Your task to perform on an android device: Search for "razer blackwidow" on target, select the first entry, add it to the cart, then select checkout. Image 0: 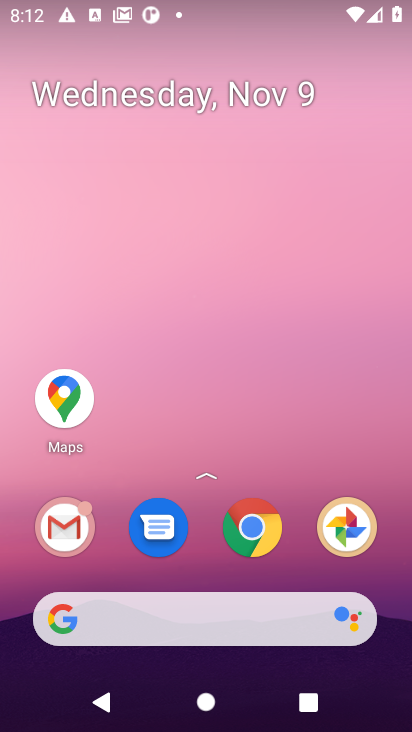
Step 0: click (257, 531)
Your task to perform on an android device: Search for "razer blackwidow" on target, select the first entry, add it to the cart, then select checkout. Image 1: 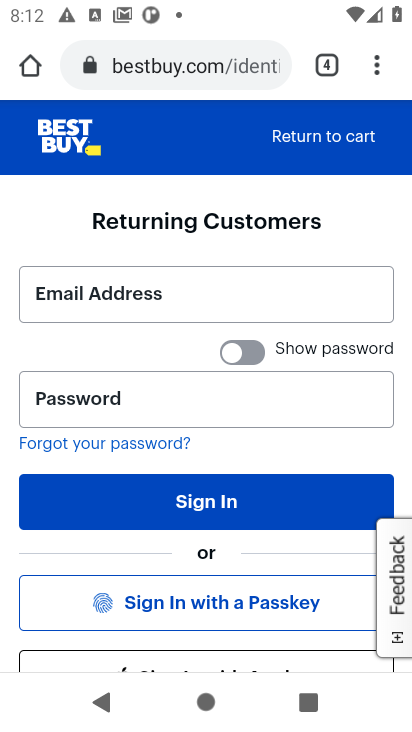
Step 1: click (173, 69)
Your task to perform on an android device: Search for "razer blackwidow" on target, select the first entry, add it to the cart, then select checkout. Image 2: 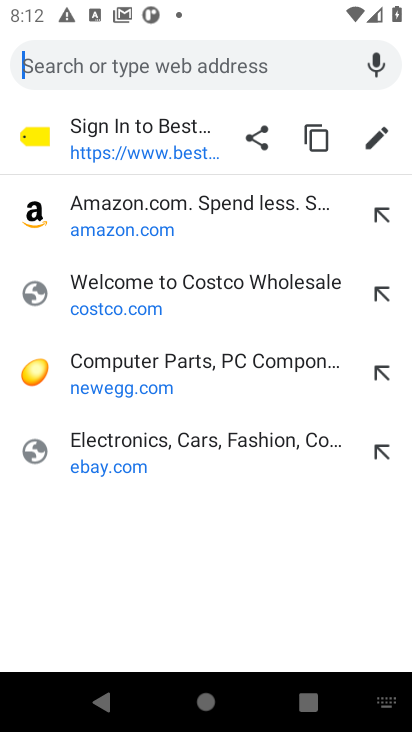
Step 2: type "target.com"
Your task to perform on an android device: Search for "razer blackwidow" on target, select the first entry, add it to the cart, then select checkout. Image 3: 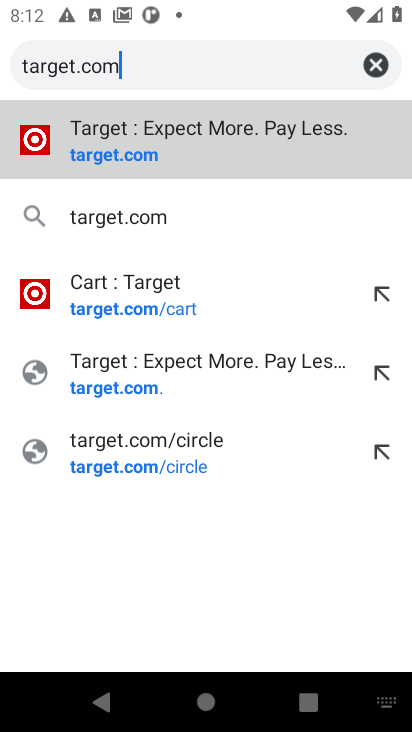
Step 3: click (114, 148)
Your task to perform on an android device: Search for "razer blackwidow" on target, select the first entry, add it to the cart, then select checkout. Image 4: 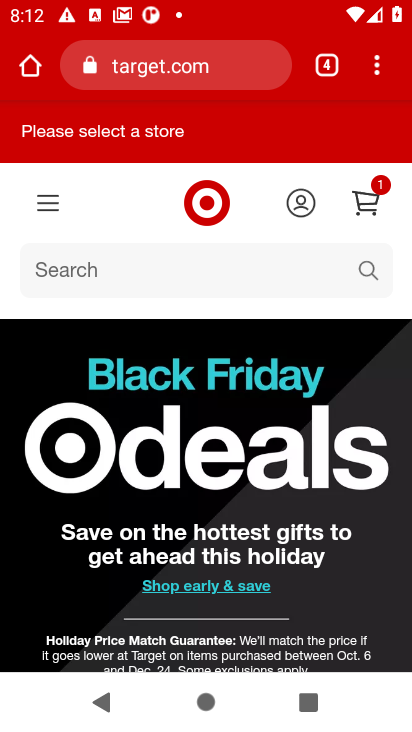
Step 4: click (371, 276)
Your task to perform on an android device: Search for "razer blackwidow" on target, select the first entry, add it to the cart, then select checkout. Image 5: 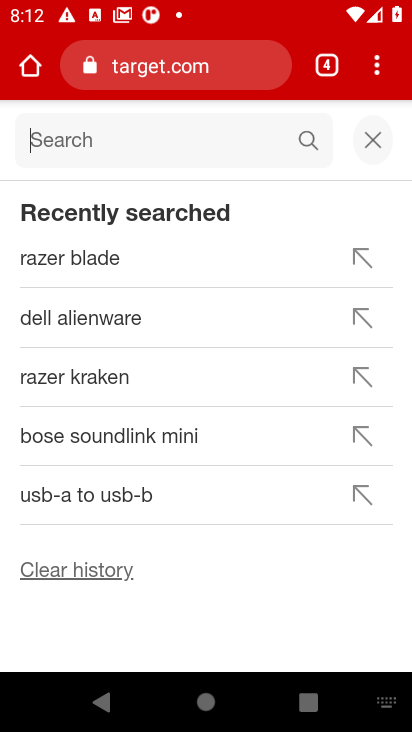
Step 5: type "razer blackwidow"
Your task to perform on an android device: Search for "razer blackwidow" on target, select the first entry, add it to the cart, then select checkout. Image 6: 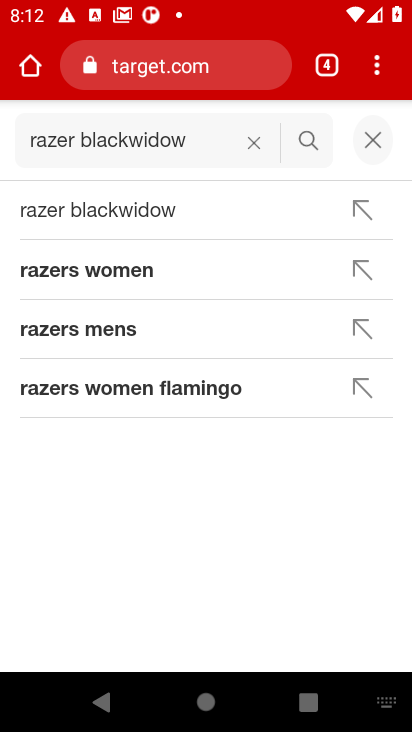
Step 6: click (144, 217)
Your task to perform on an android device: Search for "razer blackwidow" on target, select the first entry, add it to the cart, then select checkout. Image 7: 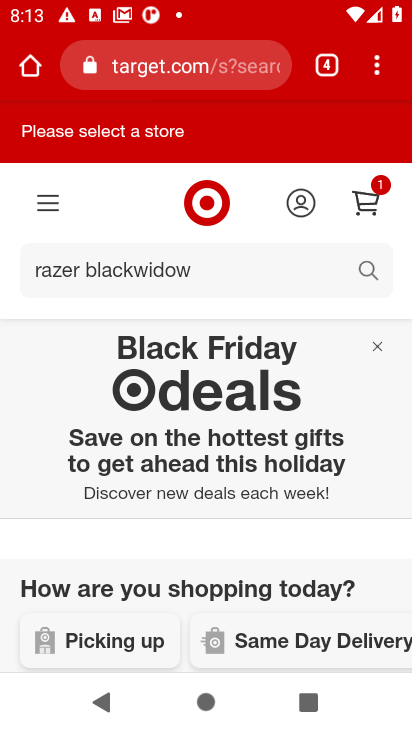
Step 7: drag from (186, 528) to (214, 190)
Your task to perform on an android device: Search for "razer blackwidow" on target, select the first entry, add it to the cart, then select checkout. Image 8: 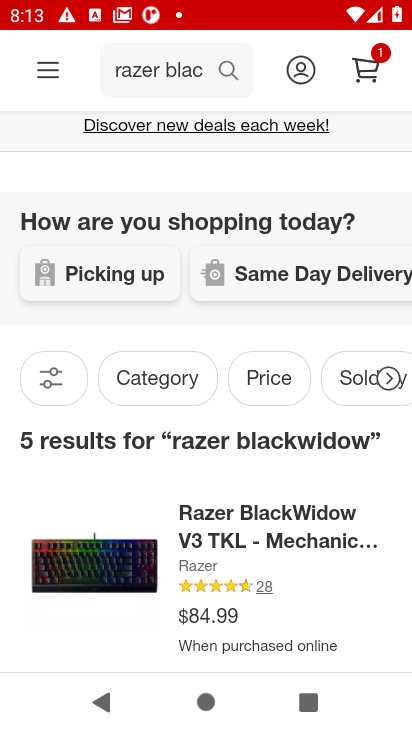
Step 8: drag from (165, 490) to (182, 284)
Your task to perform on an android device: Search for "razer blackwidow" on target, select the first entry, add it to the cart, then select checkout. Image 9: 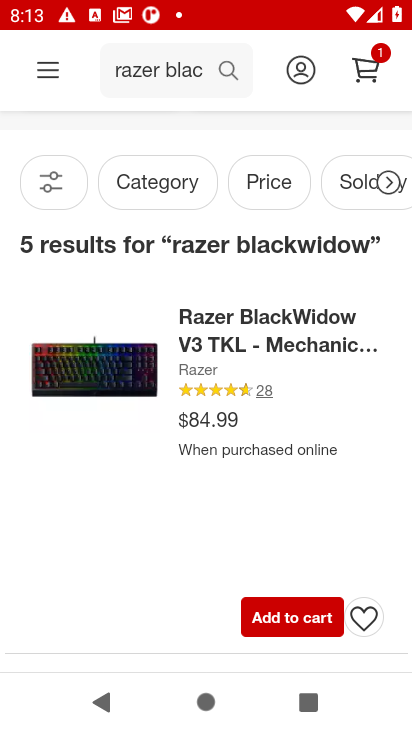
Step 9: click (265, 618)
Your task to perform on an android device: Search for "razer blackwidow" on target, select the first entry, add it to the cart, then select checkout. Image 10: 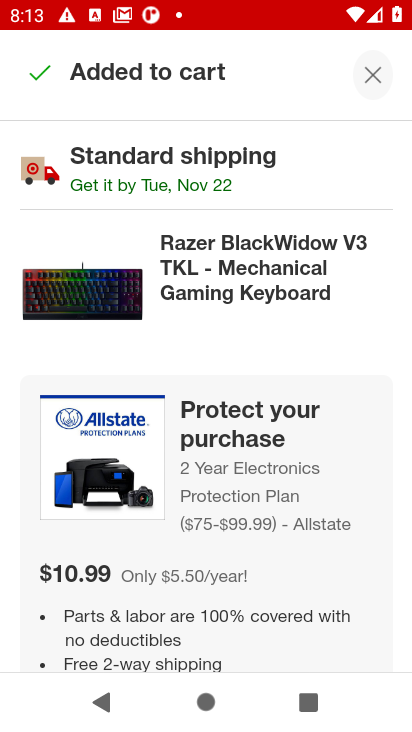
Step 10: click (366, 80)
Your task to perform on an android device: Search for "razer blackwidow" on target, select the first entry, add it to the cart, then select checkout. Image 11: 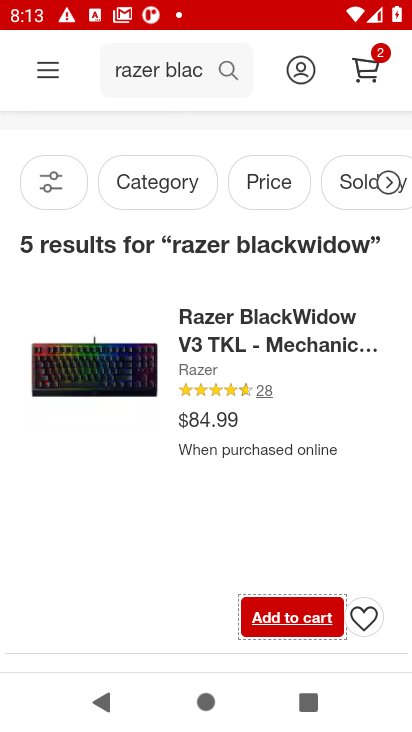
Step 11: click (364, 75)
Your task to perform on an android device: Search for "razer blackwidow" on target, select the first entry, add it to the cart, then select checkout. Image 12: 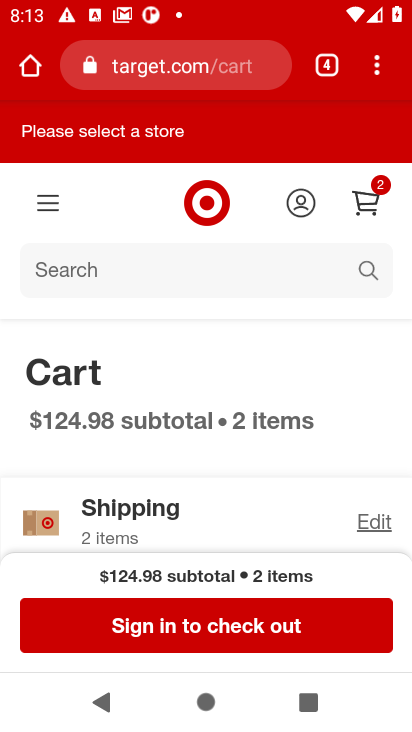
Step 12: drag from (217, 535) to (232, 376)
Your task to perform on an android device: Search for "razer blackwidow" on target, select the first entry, add it to the cart, then select checkout. Image 13: 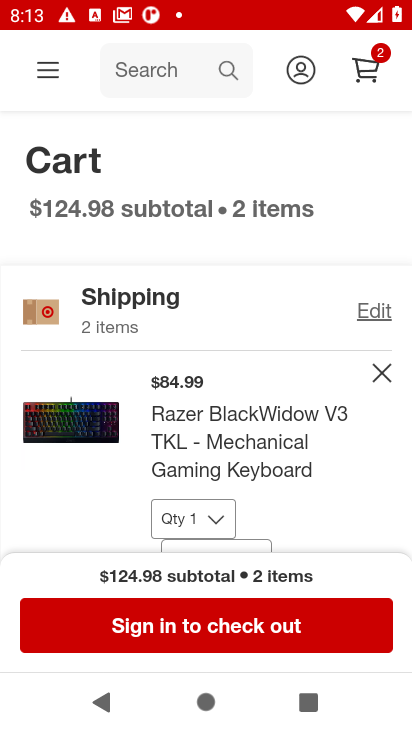
Step 13: click (219, 625)
Your task to perform on an android device: Search for "razer blackwidow" on target, select the first entry, add it to the cart, then select checkout. Image 14: 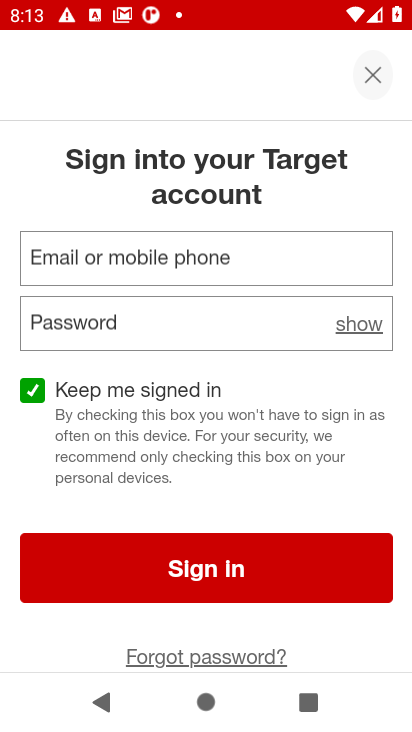
Step 14: task complete